Your task to perform on an android device: Do I have any events this weekend? Image 0: 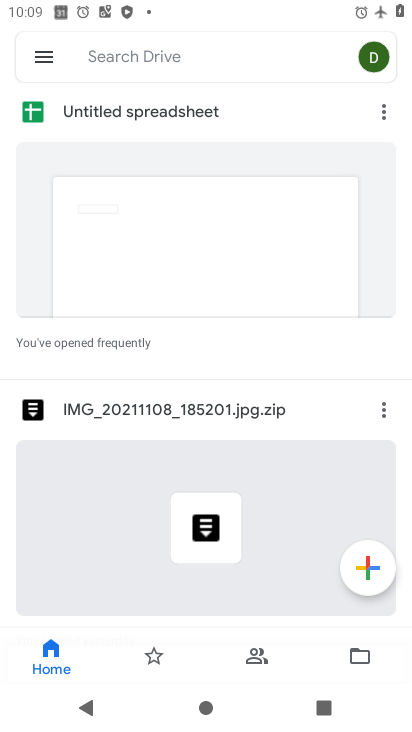
Step 0: press home button
Your task to perform on an android device: Do I have any events this weekend? Image 1: 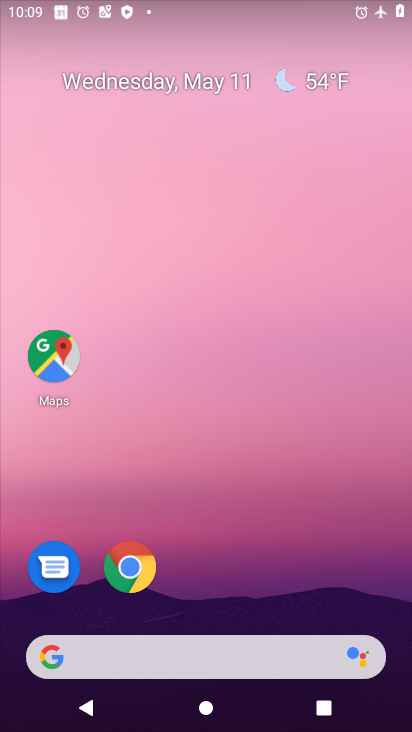
Step 1: drag from (221, 616) to (365, 86)
Your task to perform on an android device: Do I have any events this weekend? Image 2: 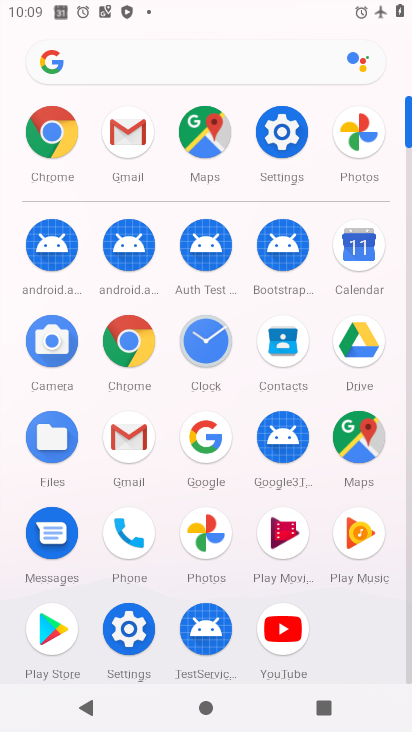
Step 2: click (351, 258)
Your task to perform on an android device: Do I have any events this weekend? Image 3: 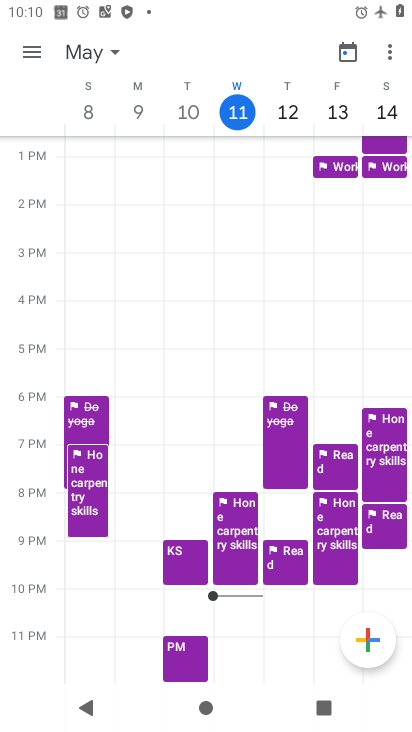
Step 3: click (22, 62)
Your task to perform on an android device: Do I have any events this weekend? Image 4: 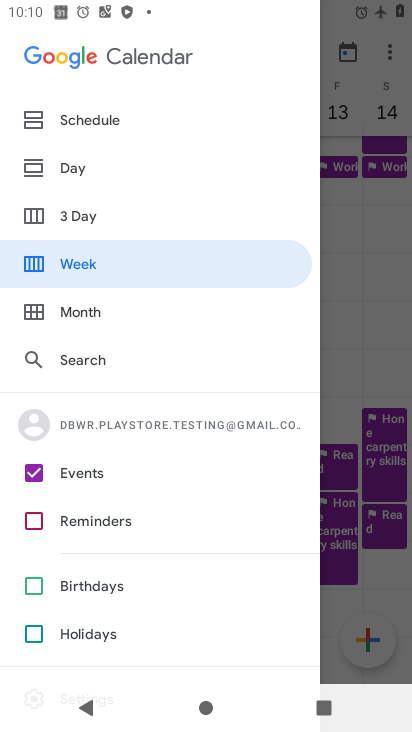
Step 4: click (144, 256)
Your task to perform on an android device: Do I have any events this weekend? Image 5: 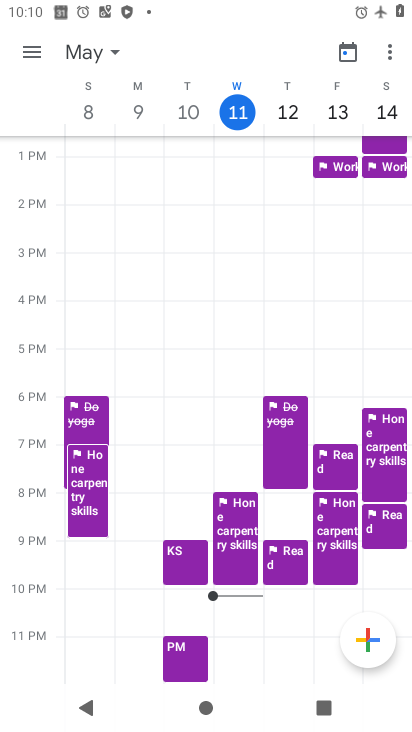
Step 5: task complete